Your task to perform on an android device: Show me productivity apps on the Play Store Image 0: 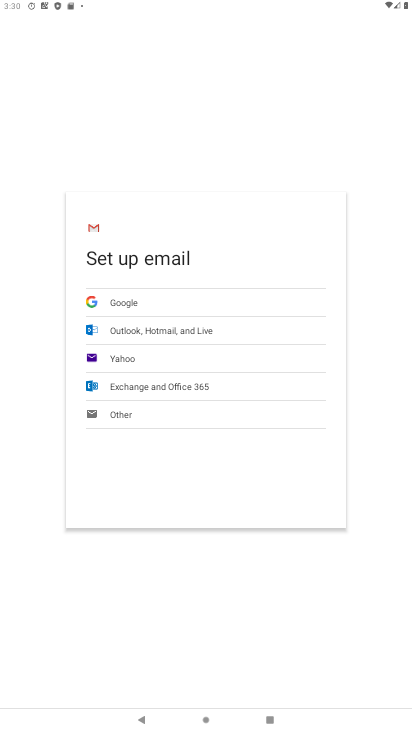
Step 0: press home button
Your task to perform on an android device: Show me productivity apps on the Play Store Image 1: 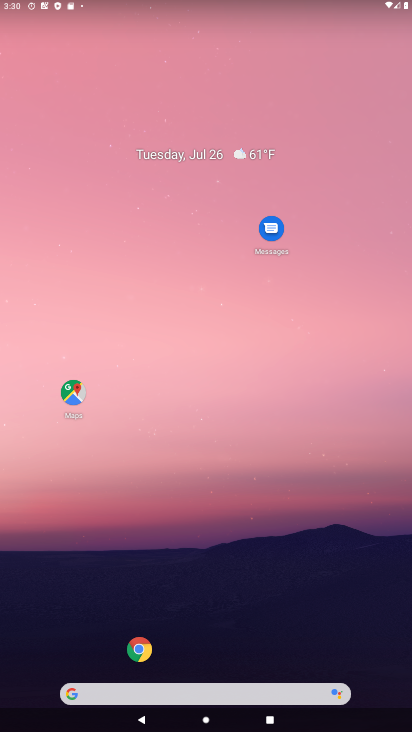
Step 1: drag from (34, 721) to (299, 174)
Your task to perform on an android device: Show me productivity apps on the Play Store Image 2: 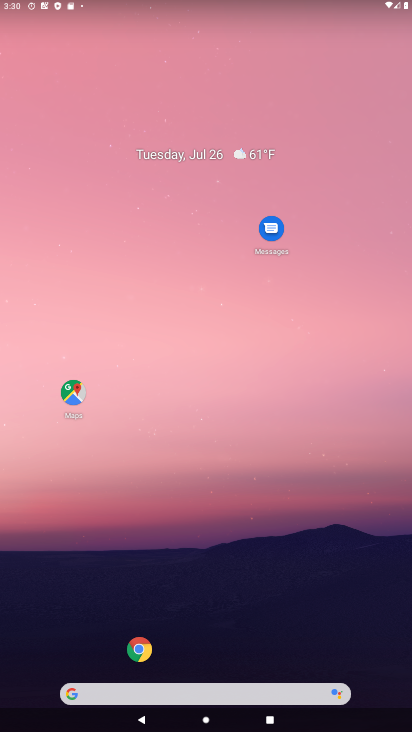
Step 2: drag from (26, 720) to (173, 67)
Your task to perform on an android device: Show me productivity apps on the Play Store Image 3: 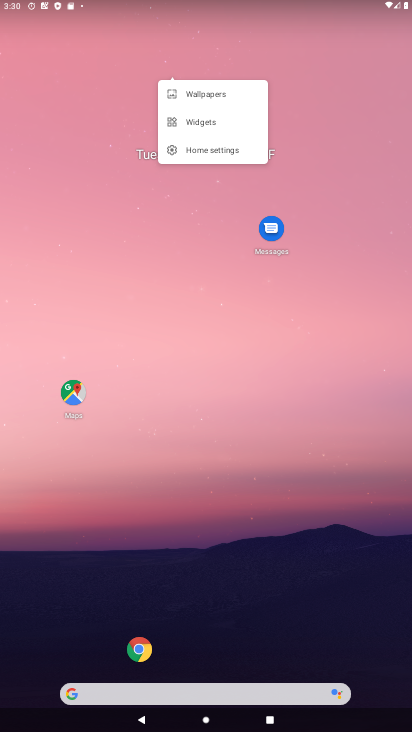
Step 3: drag from (15, 691) to (14, 198)
Your task to perform on an android device: Show me productivity apps on the Play Store Image 4: 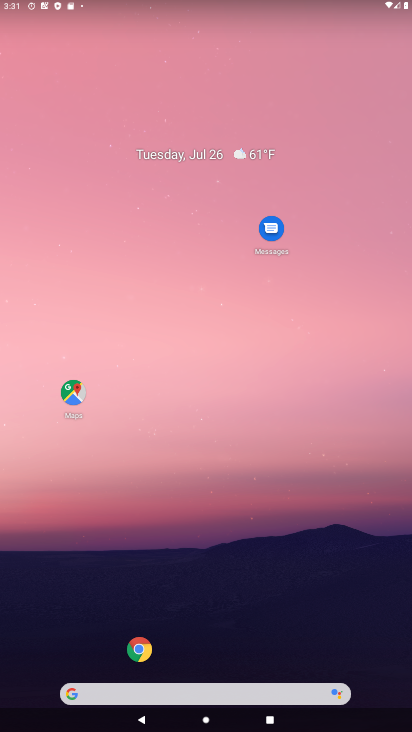
Step 4: drag from (42, 690) to (240, 14)
Your task to perform on an android device: Show me productivity apps on the Play Store Image 5: 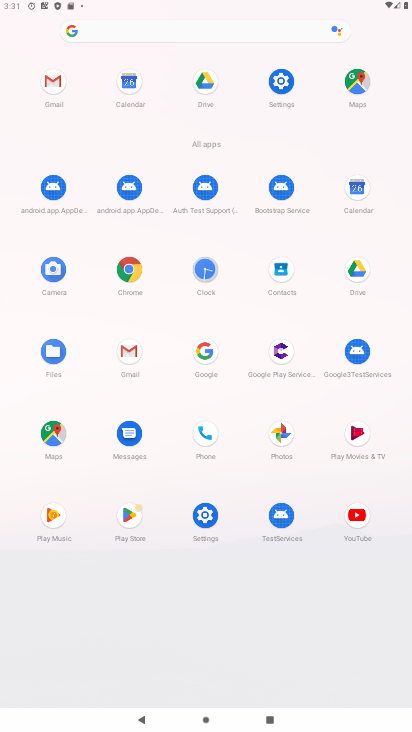
Step 5: click (133, 522)
Your task to perform on an android device: Show me productivity apps on the Play Store Image 6: 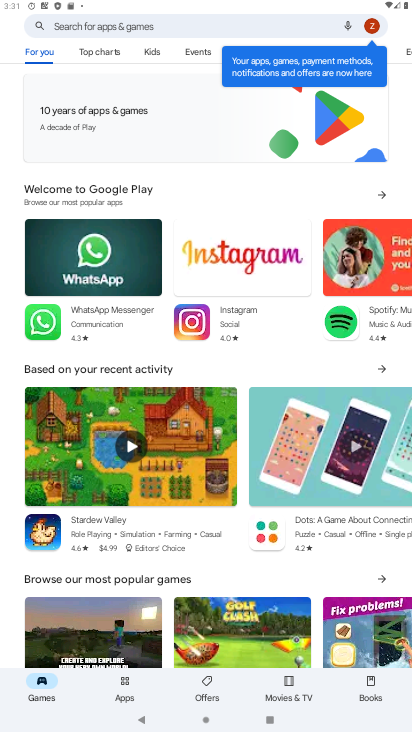
Step 6: click (86, 27)
Your task to perform on an android device: Show me productivity apps on the Play Store Image 7: 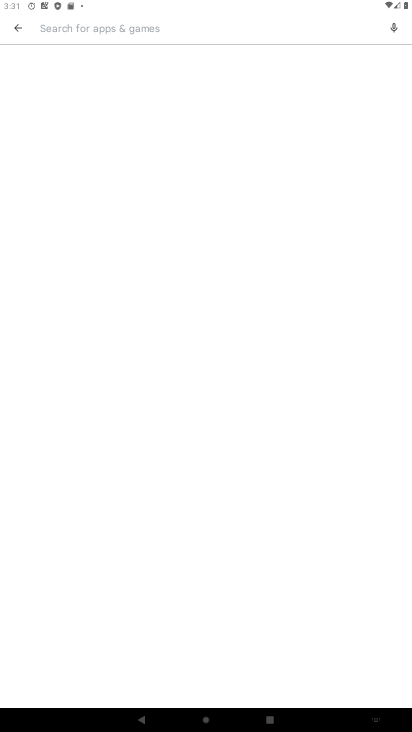
Step 7: type " productivity apps "
Your task to perform on an android device: Show me productivity apps on the Play Store Image 8: 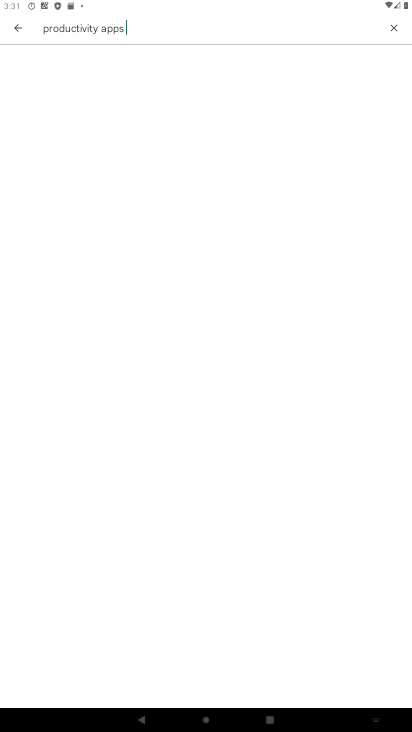
Step 8: type ""
Your task to perform on an android device: Show me productivity apps on the Play Store Image 9: 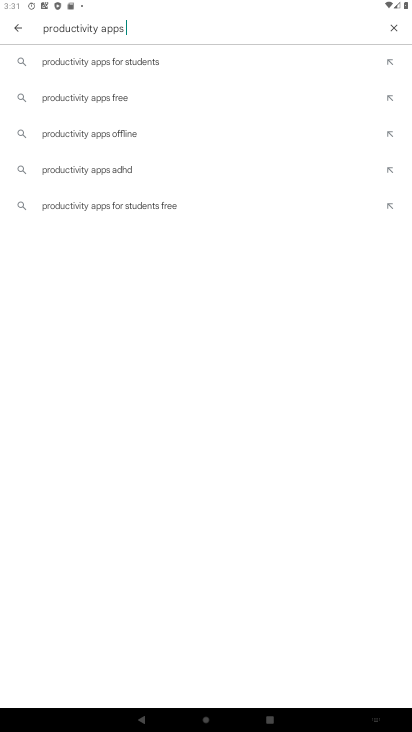
Step 9: type ""
Your task to perform on an android device: Show me productivity apps on the Play Store Image 10: 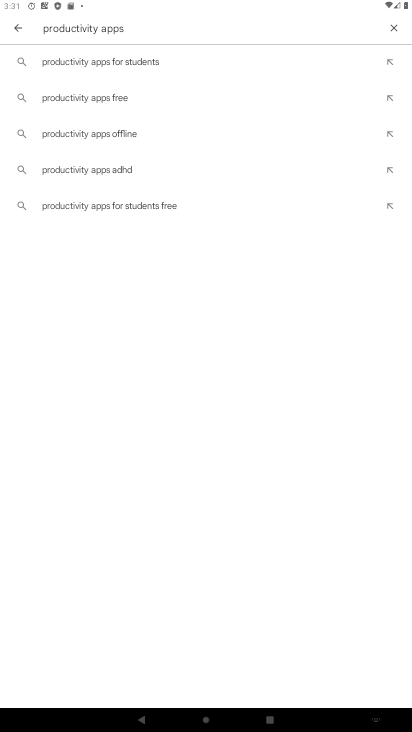
Step 10: type ""
Your task to perform on an android device: Show me productivity apps on the Play Store Image 11: 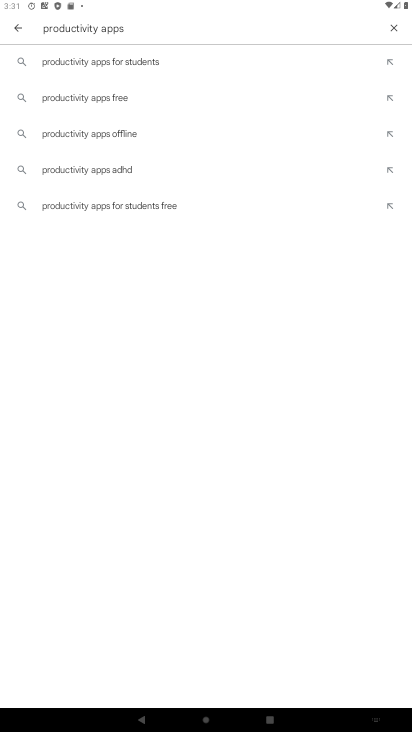
Step 11: task complete